Your task to perform on an android device: Go to Reddit.com Image 0: 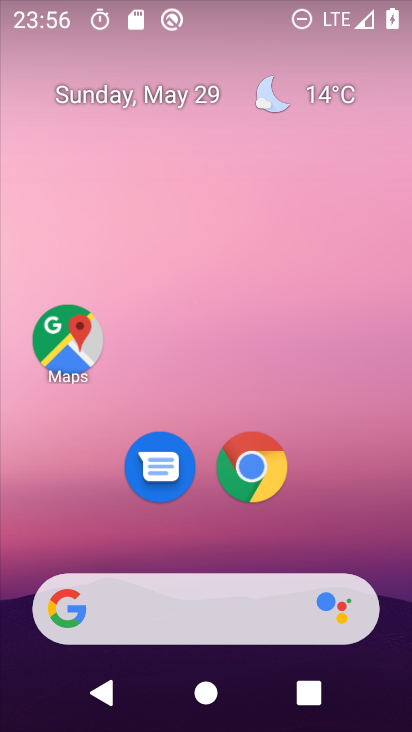
Step 0: click (234, 468)
Your task to perform on an android device: Go to Reddit.com Image 1: 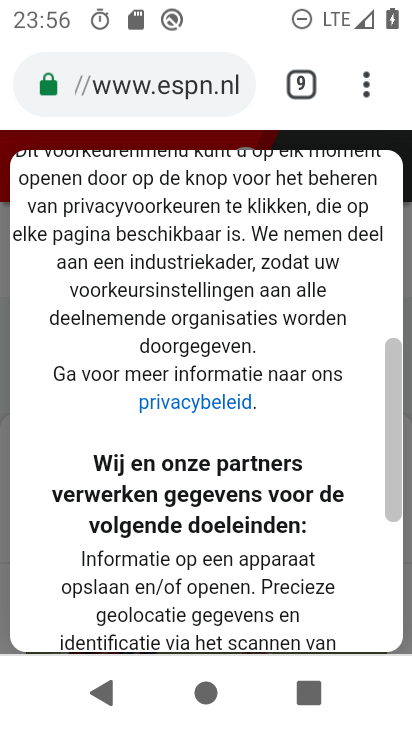
Step 1: click (301, 92)
Your task to perform on an android device: Go to Reddit.com Image 2: 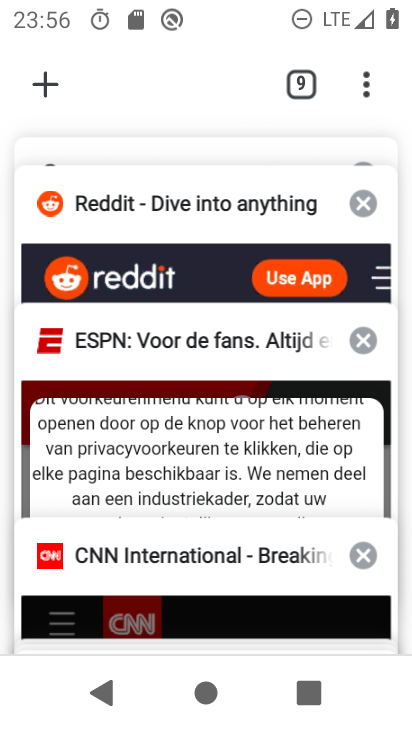
Step 2: click (155, 222)
Your task to perform on an android device: Go to Reddit.com Image 3: 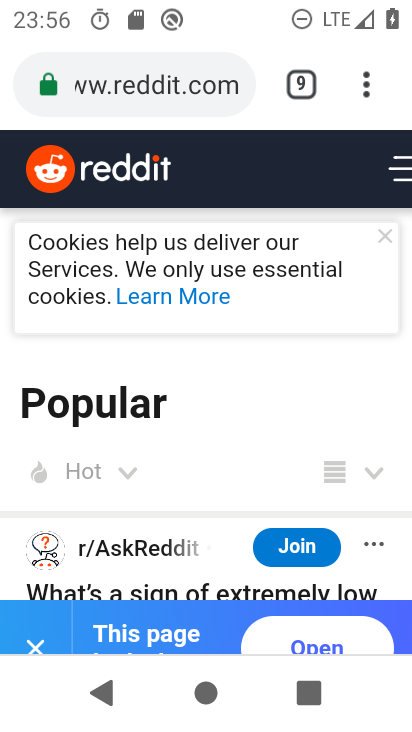
Step 3: task complete